Your task to perform on an android device: turn off location Image 0: 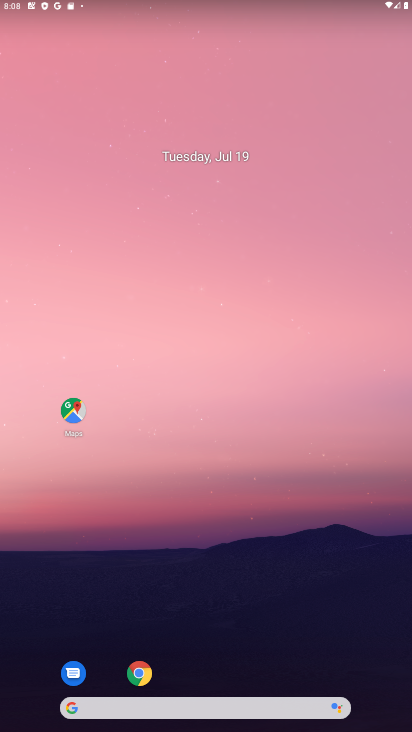
Step 0: drag from (239, 670) to (249, 39)
Your task to perform on an android device: turn off location Image 1: 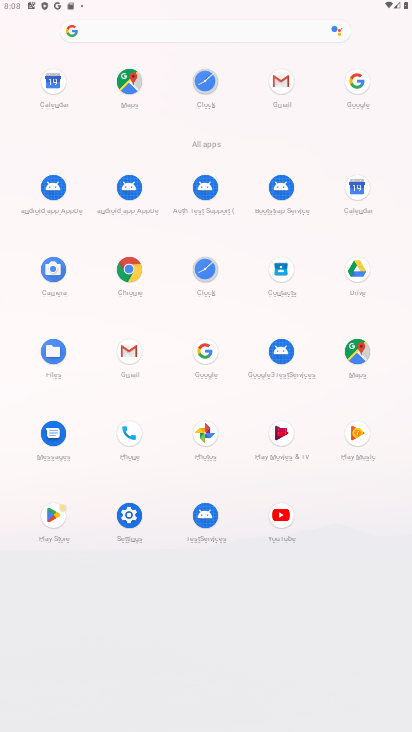
Step 1: click (117, 523)
Your task to perform on an android device: turn off location Image 2: 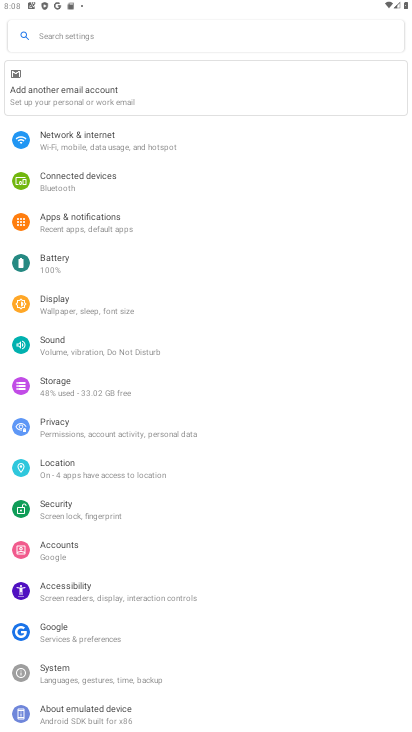
Step 2: click (140, 485)
Your task to perform on an android device: turn off location Image 3: 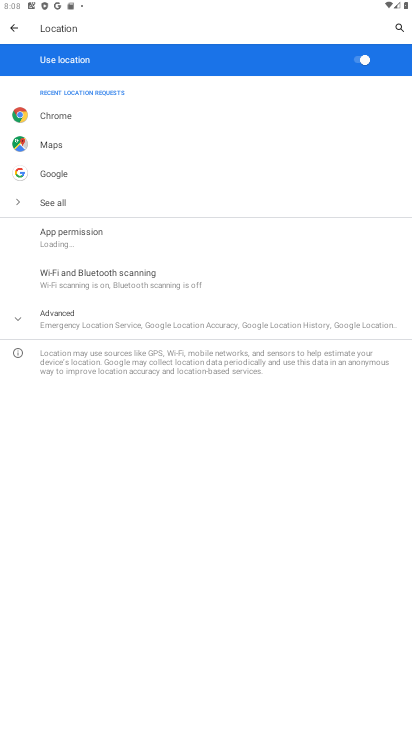
Step 3: task complete